Your task to perform on an android device: Open the Play Movies app and select the watchlist tab. Image 0: 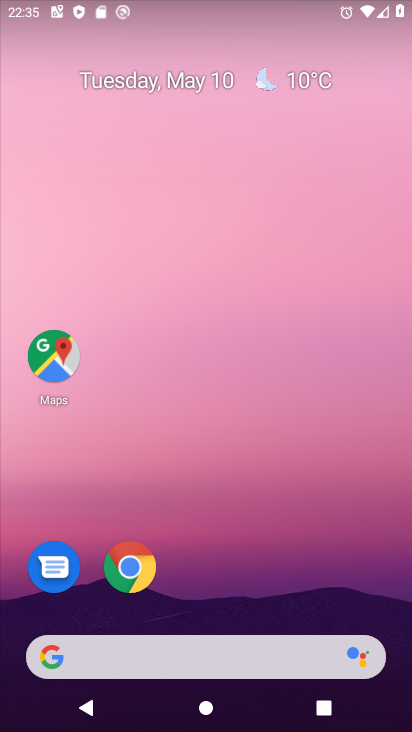
Step 0: drag from (346, 575) to (318, 6)
Your task to perform on an android device: Open the Play Movies app and select the watchlist tab. Image 1: 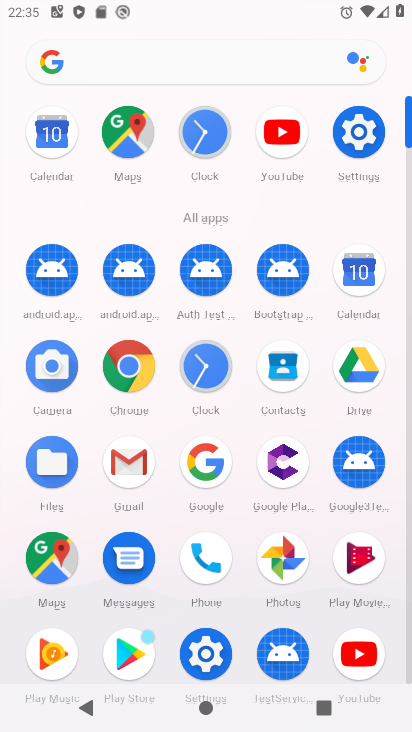
Step 1: click (362, 571)
Your task to perform on an android device: Open the Play Movies app and select the watchlist tab. Image 2: 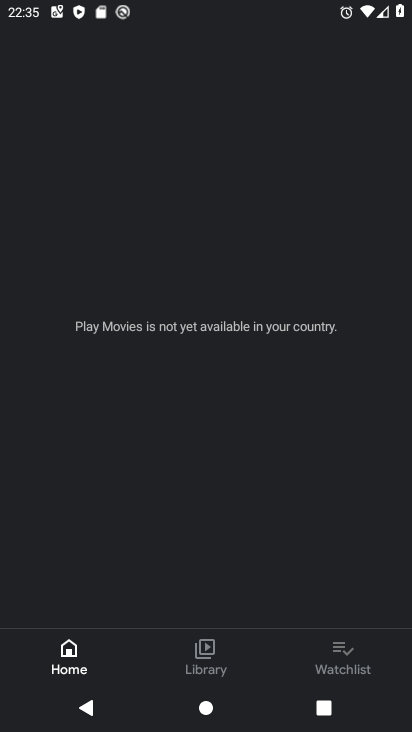
Step 2: click (339, 652)
Your task to perform on an android device: Open the Play Movies app and select the watchlist tab. Image 3: 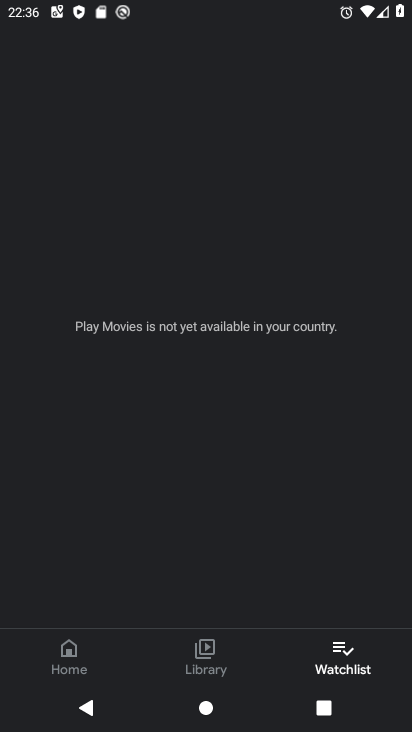
Step 3: task complete